Your task to perform on an android device: Open display settings Image 0: 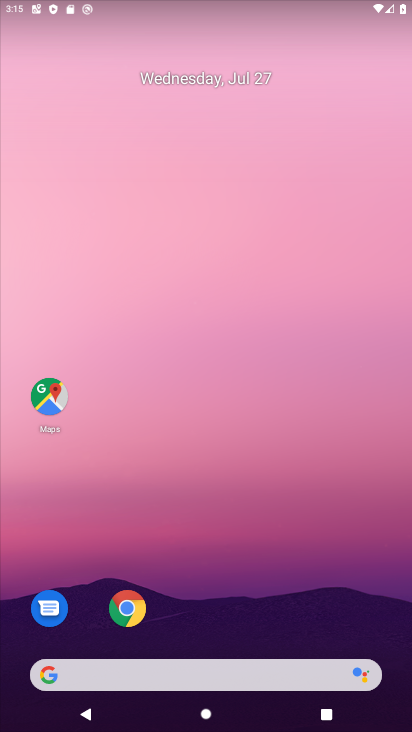
Step 0: drag from (390, 646) to (327, 257)
Your task to perform on an android device: Open display settings Image 1: 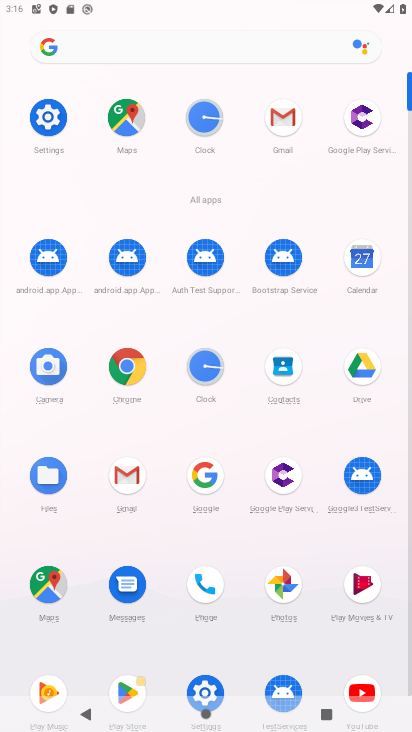
Step 1: click (206, 684)
Your task to perform on an android device: Open display settings Image 2: 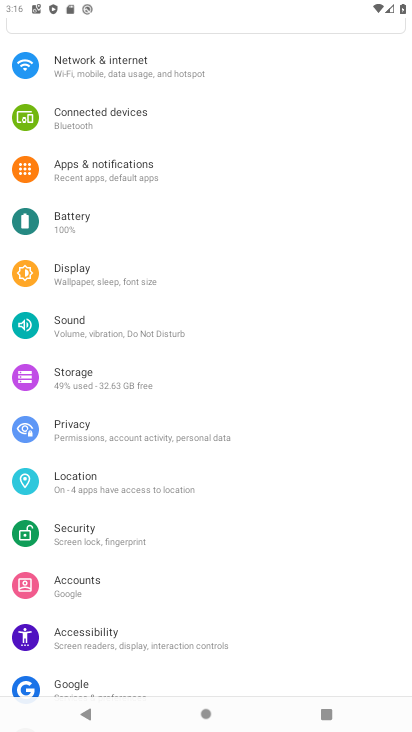
Step 2: click (71, 274)
Your task to perform on an android device: Open display settings Image 3: 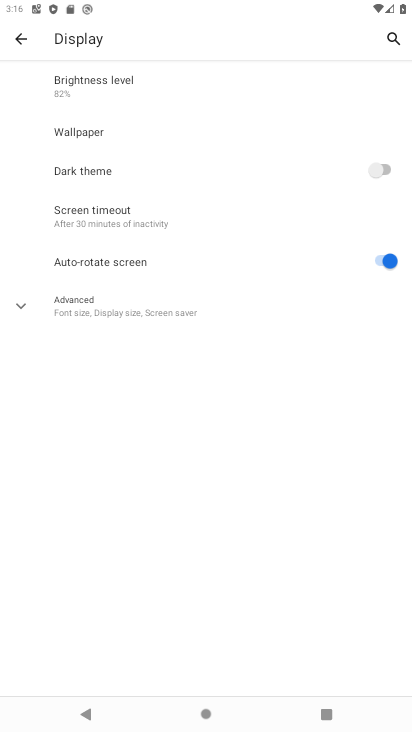
Step 3: click (25, 309)
Your task to perform on an android device: Open display settings Image 4: 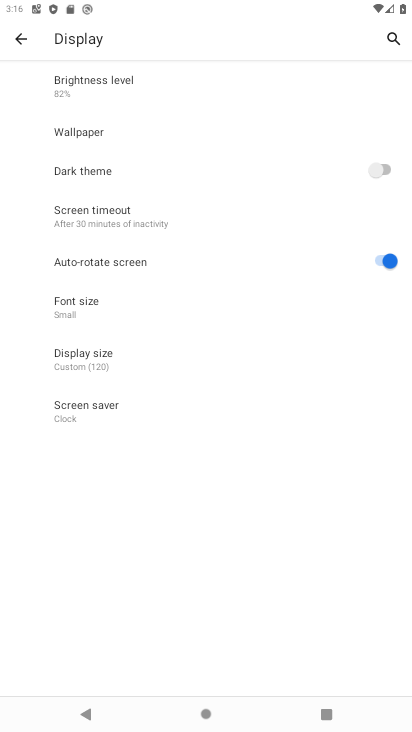
Step 4: task complete